Your task to perform on an android device: Open the calendar and show me this week's events Image 0: 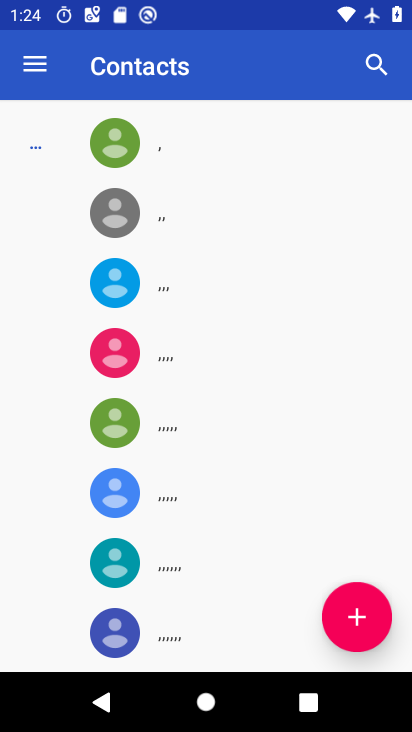
Step 0: press home button
Your task to perform on an android device: Open the calendar and show me this week's events Image 1: 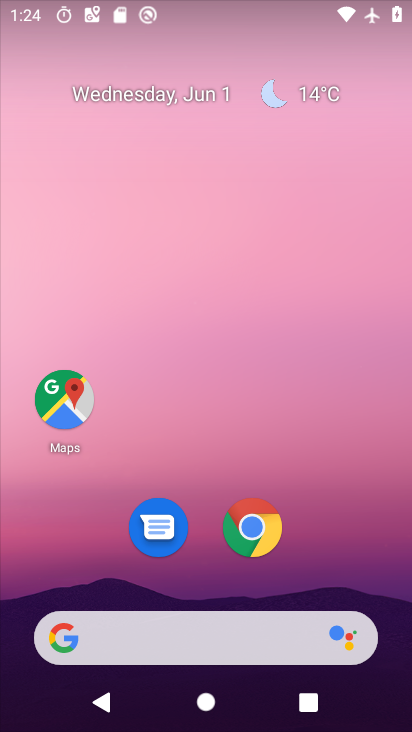
Step 1: drag from (341, 592) to (278, 0)
Your task to perform on an android device: Open the calendar and show me this week's events Image 2: 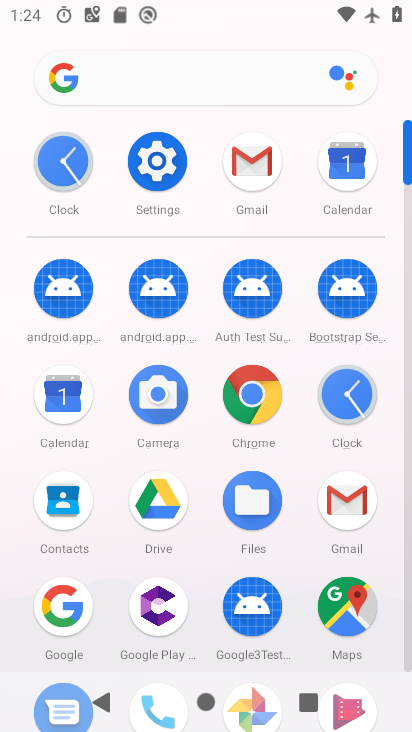
Step 2: click (328, 161)
Your task to perform on an android device: Open the calendar and show me this week's events Image 3: 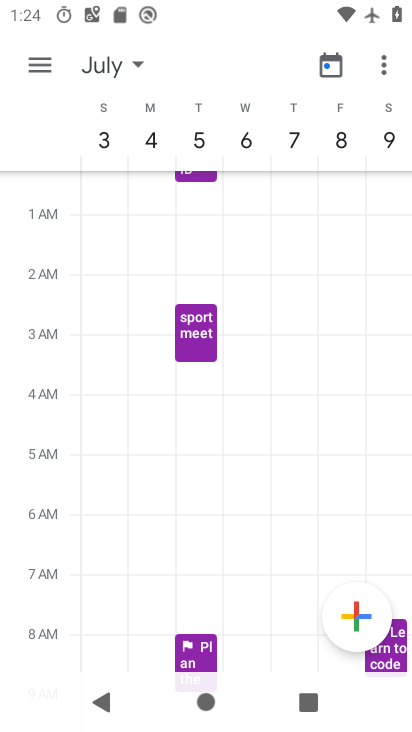
Step 3: click (320, 69)
Your task to perform on an android device: Open the calendar and show me this week's events Image 4: 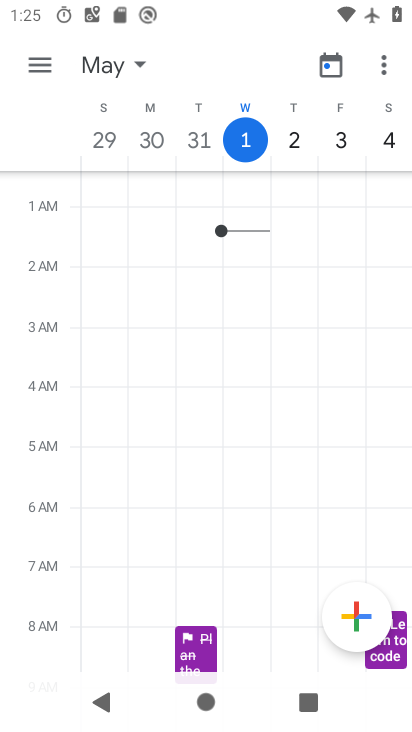
Step 4: task complete